Your task to perform on an android device: Open Google Chrome and click the shortcut for Amazon.com Image 0: 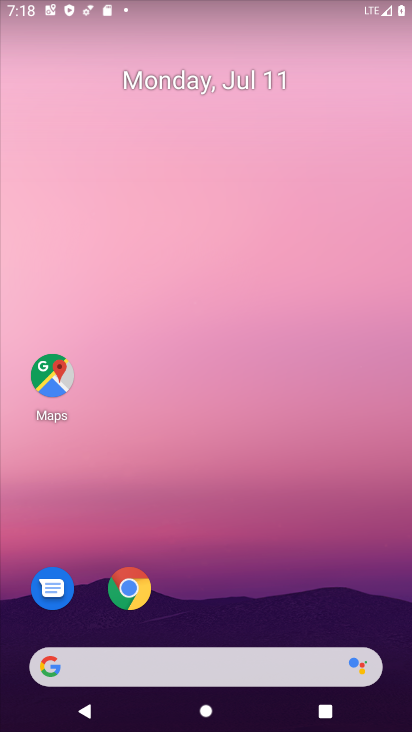
Step 0: drag from (383, 617) to (259, 74)
Your task to perform on an android device: Open Google Chrome and click the shortcut for Amazon.com Image 1: 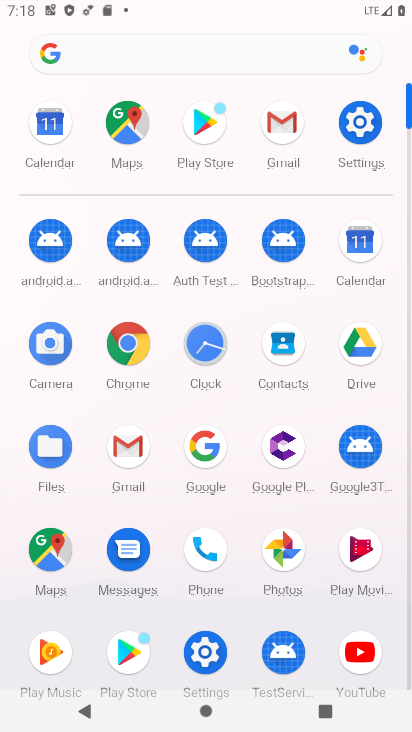
Step 1: click (127, 366)
Your task to perform on an android device: Open Google Chrome and click the shortcut for Amazon.com Image 2: 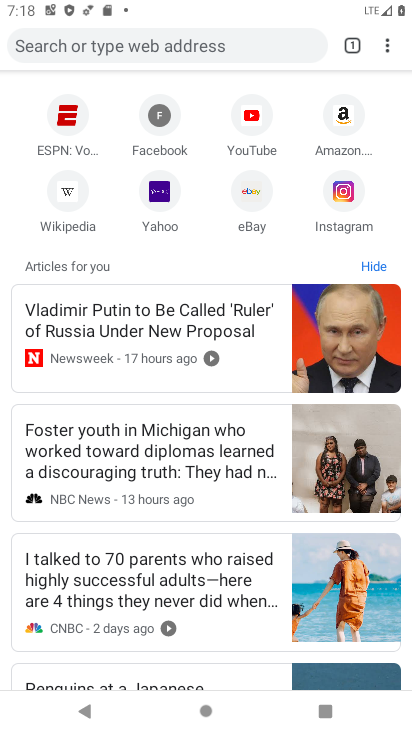
Step 2: click (350, 125)
Your task to perform on an android device: Open Google Chrome and click the shortcut for Amazon.com Image 3: 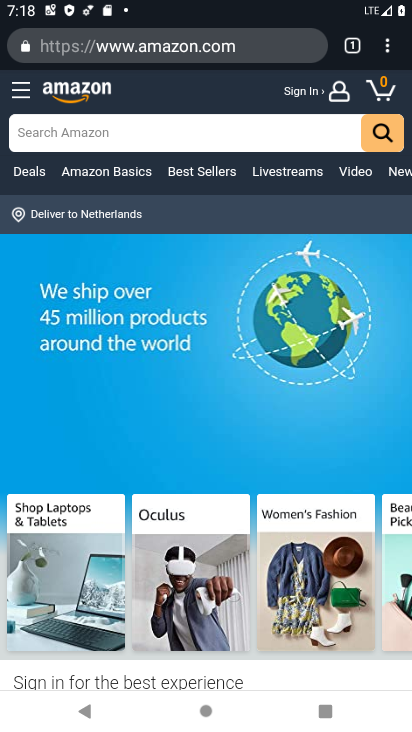
Step 3: task complete